Your task to perform on an android device: Open Chrome and go to the settings page Image 0: 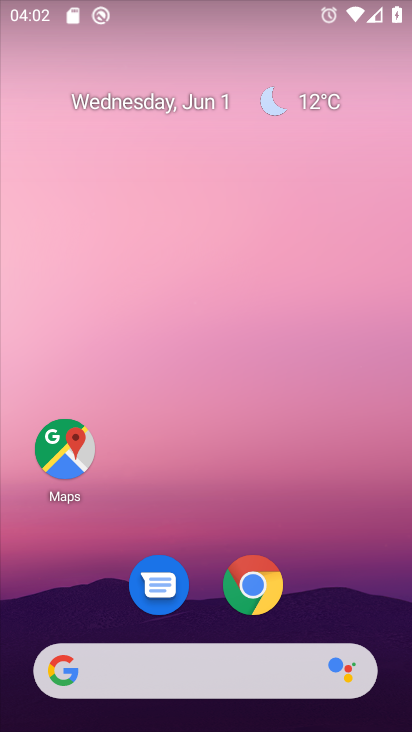
Step 0: click (259, 587)
Your task to perform on an android device: Open Chrome and go to the settings page Image 1: 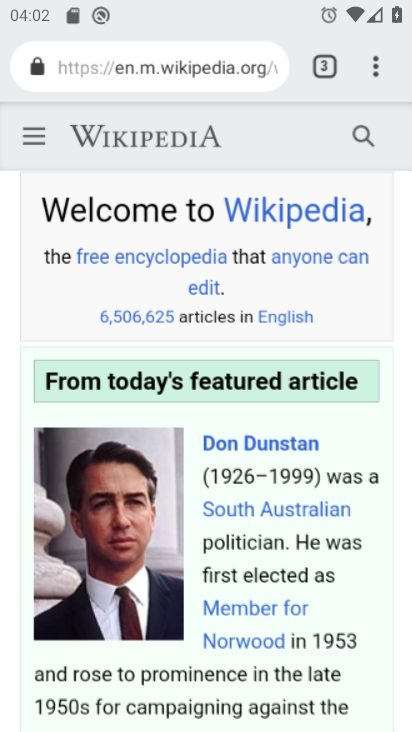
Step 1: click (373, 76)
Your task to perform on an android device: Open Chrome and go to the settings page Image 2: 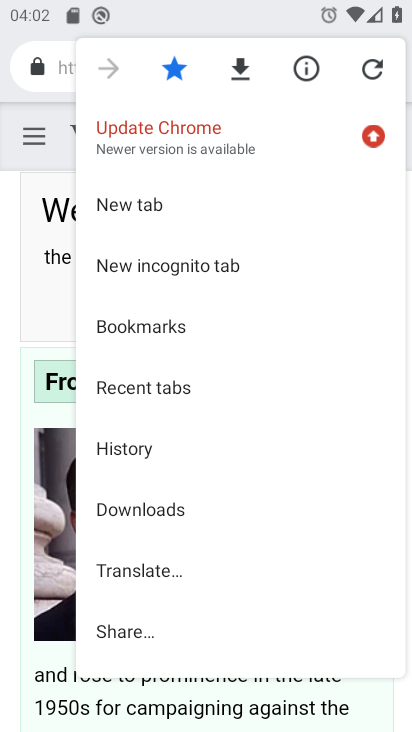
Step 2: drag from (242, 520) to (261, 62)
Your task to perform on an android device: Open Chrome and go to the settings page Image 3: 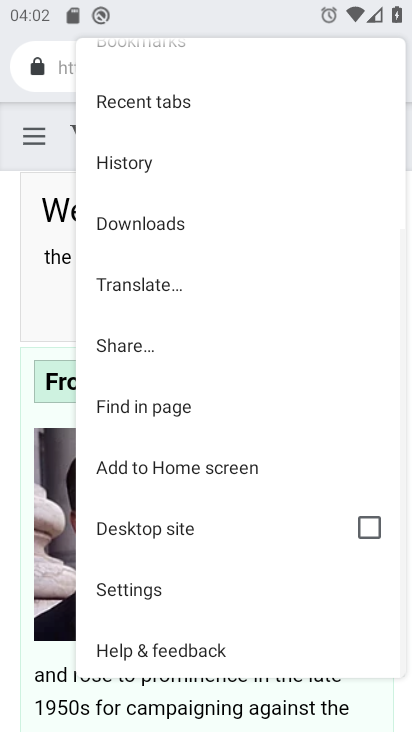
Step 3: click (175, 576)
Your task to perform on an android device: Open Chrome and go to the settings page Image 4: 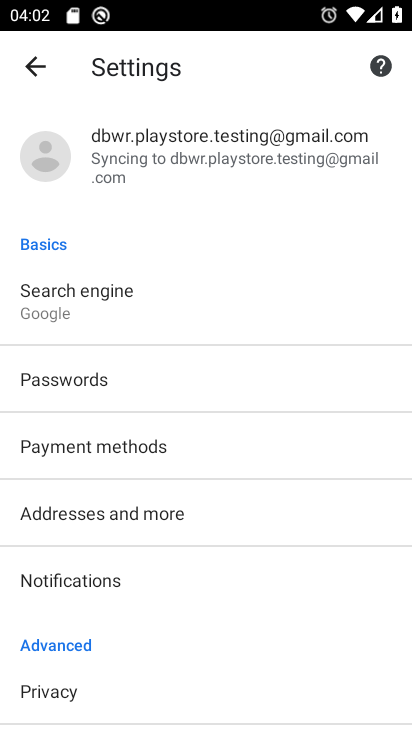
Step 4: task complete